Your task to perform on an android device: Open eBay Image 0: 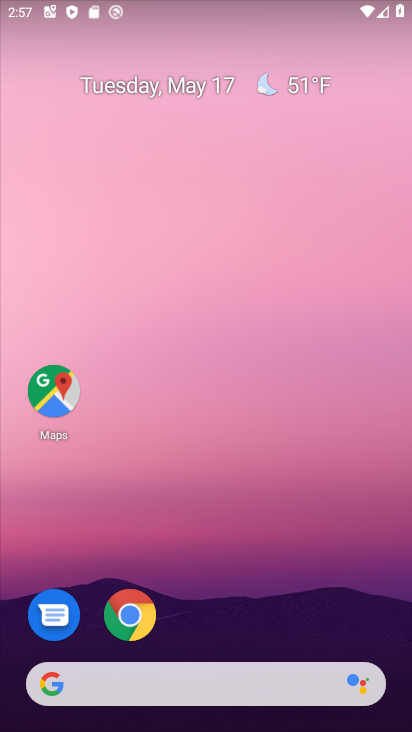
Step 0: click (128, 613)
Your task to perform on an android device: Open eBay Image 1: 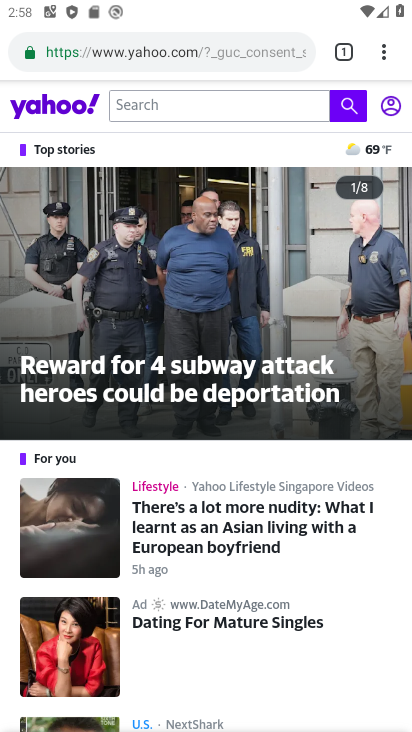
Step 1: click (336, 51)
Your task to perform on an android device: Open eBay Image 2: 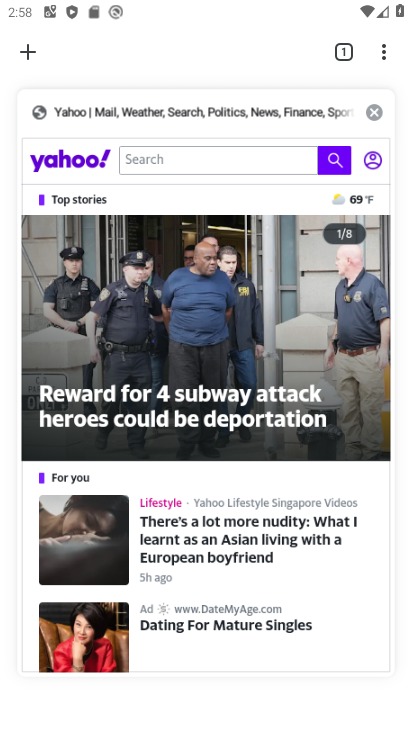
Step 2: click (375, 110)
Your task to perform on an android device: Open eBay Image 3: 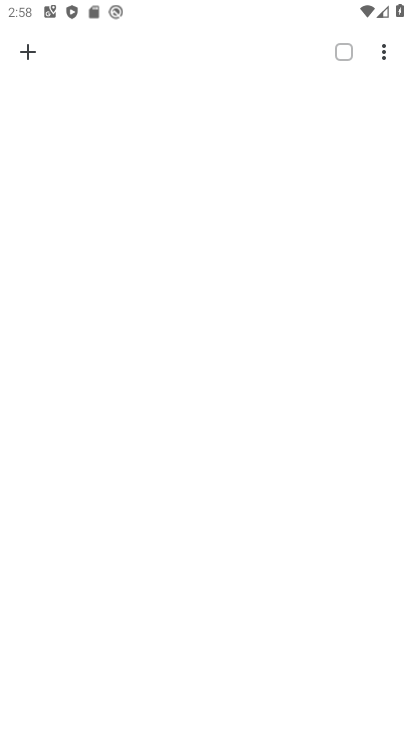
Step 3: click (28, 45)
Your task to perform on an android device: Open eBay Image 4: 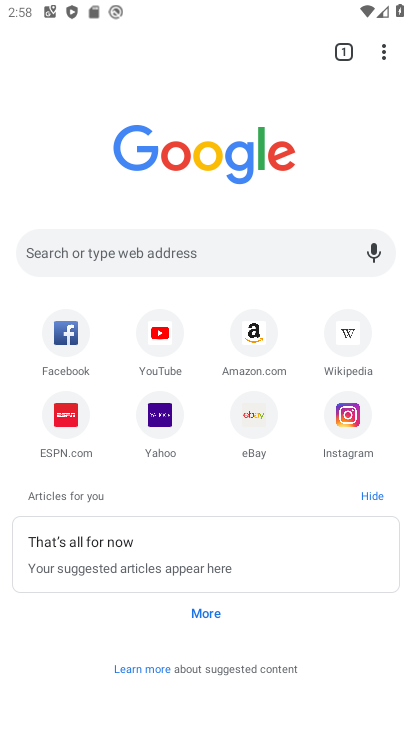
Step 4: click (248, 414)
Your task to perform on an android device: Open eBay Image 5: 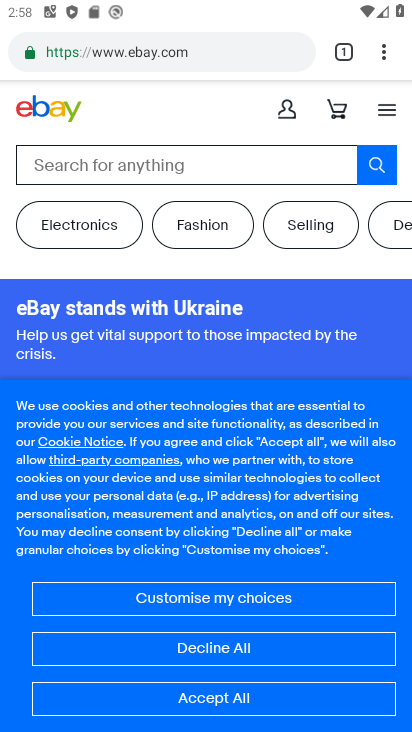
Step 5: click (228, 701)
Your task to perform on an android device: Open eBay Image 6: 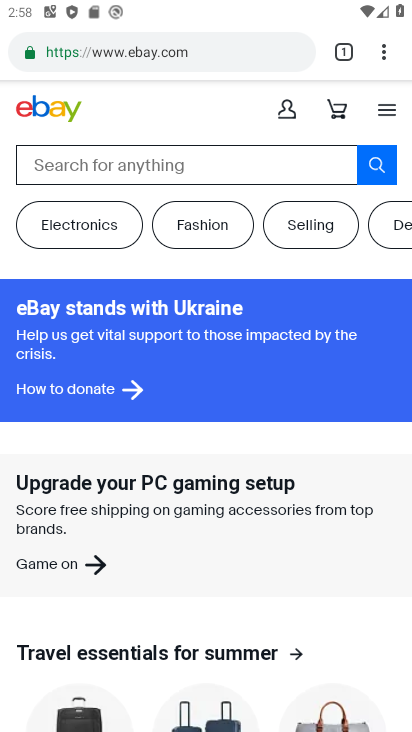
Step 6: task complete